Your task to perform on an android device: turn on wifi Image 0: 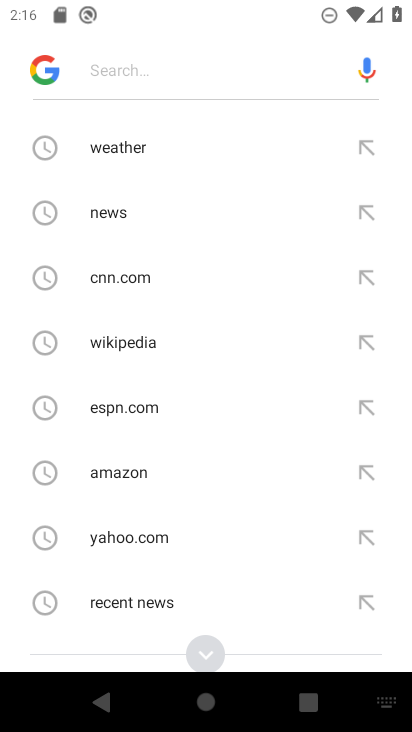
Step 0: press back button
Your task to perform on an android device: turn on wifi Image 1: 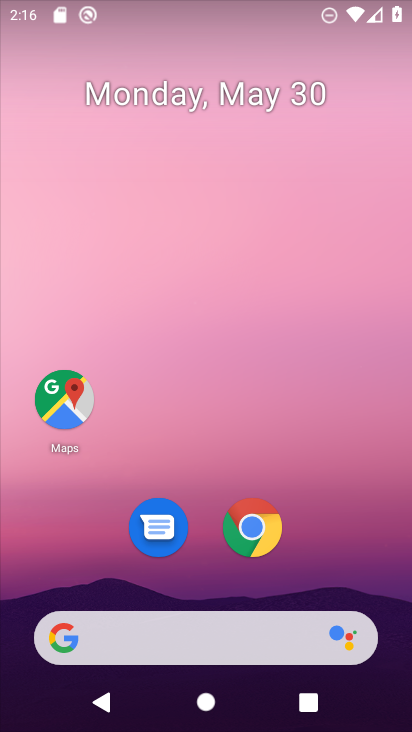
Step 1: drag from (262, 701) to (222, 114)
Your task to perform on an android device: turn on wifi Image 2: 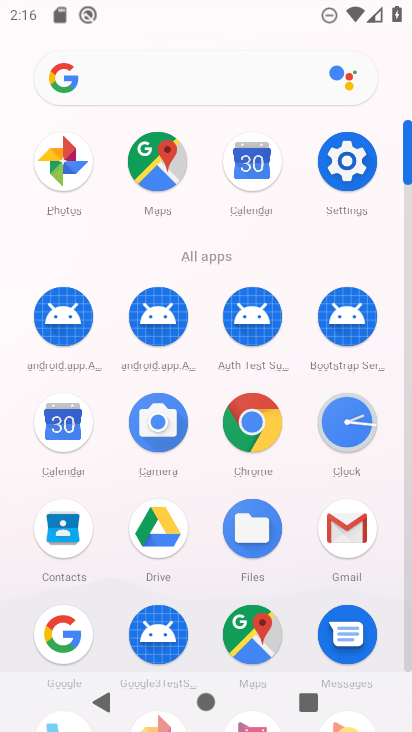
Step 2: click (352, 150)
Your task to perform on an android device: turn on wifi Image 3: 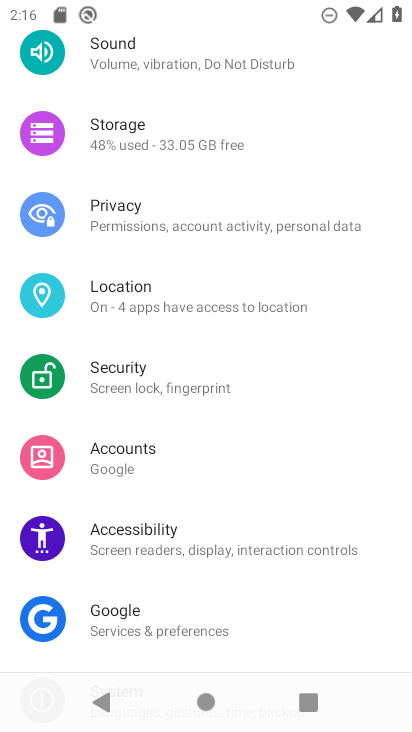
Step 3: drag from (150, 101) to (151, 527)
Your task to perform on an android device: turn on wifi Image 4: 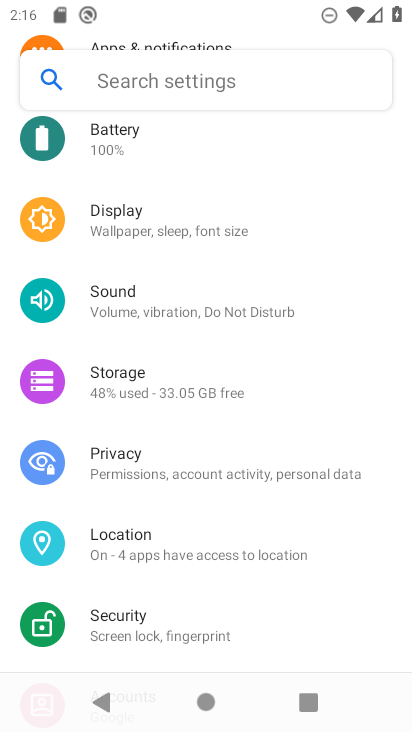
Step 4: drag from (124, 234) to (183, 490)
Your task to perform on an android device: turn on wifi Image 5: 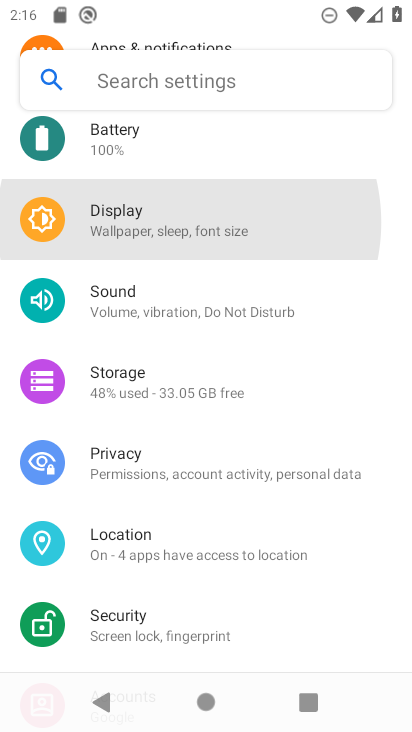
Step 5: drag from (177, 256) to (249, 568)
Your task to perform on an android device: turn on wifi Image 6: 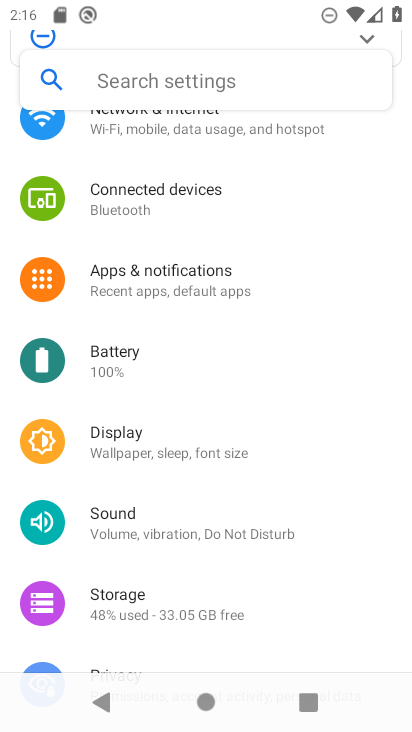
Step 6: drag from (250, 334) to (298, 575)
Your task to perform on an android device: turn on wifi Image 7: 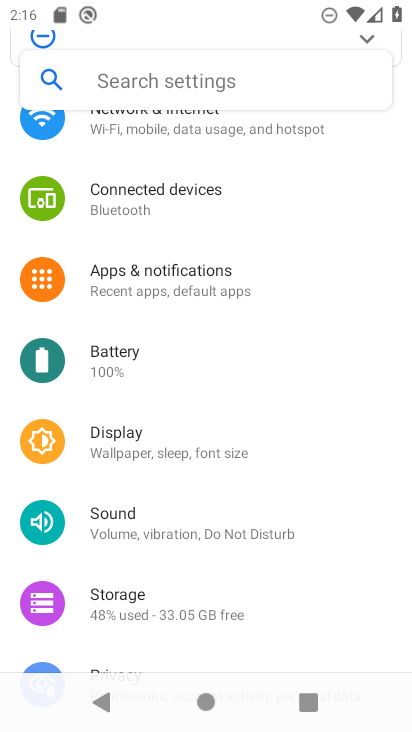
Step 7: drag from (257, 380) to (309, 651)
Your task to perform on an android device: turn on wifi Image 8: 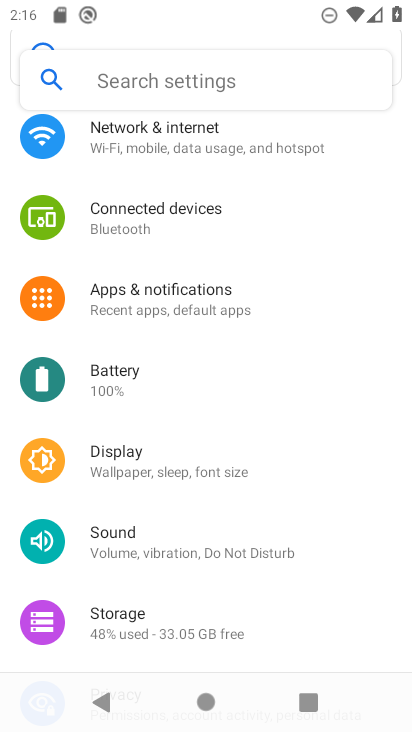
Step 8: drag from (228, 304) to (281, 617)
Your task to perform on an android device: turn on wifi Image 9: 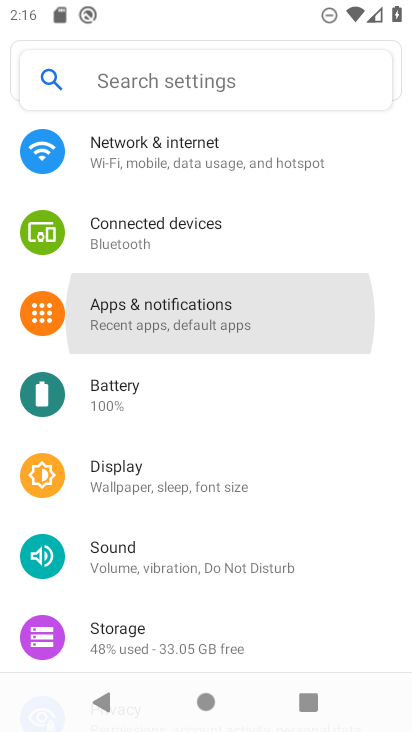
Step 9: drag from (239, 313) to (279, 663)
Your task to perform on an android device: turn on wifi Image 10: 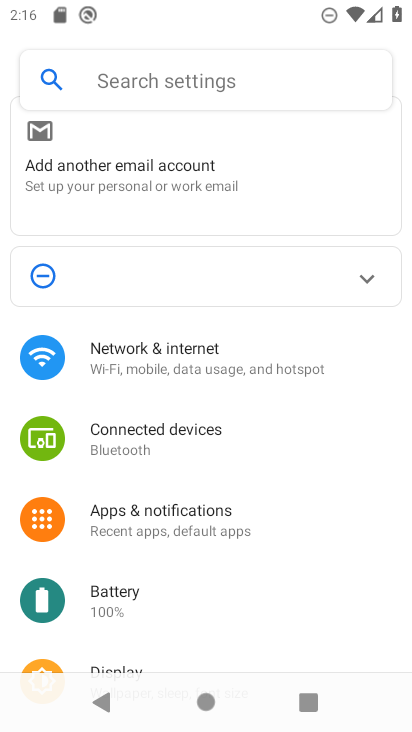
Step 10: drag from (200, 337) to (240, 648)
Your task to perform on an android device: turn on wifi Image 11: 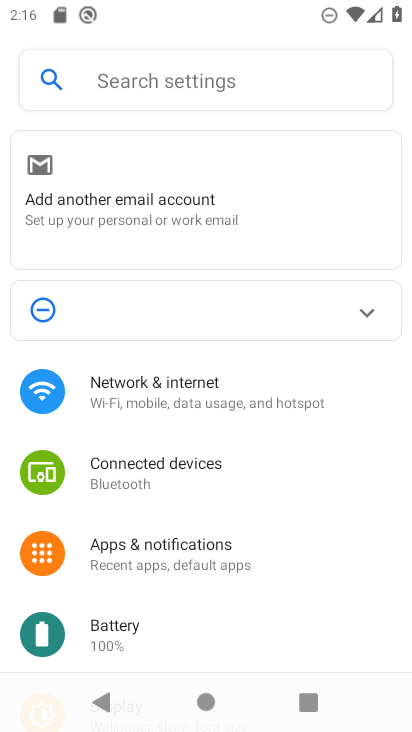
Step 11: drag from (183, 373) to (219, 621)
Your task to perform on an android device: turn on wifi Image 12: 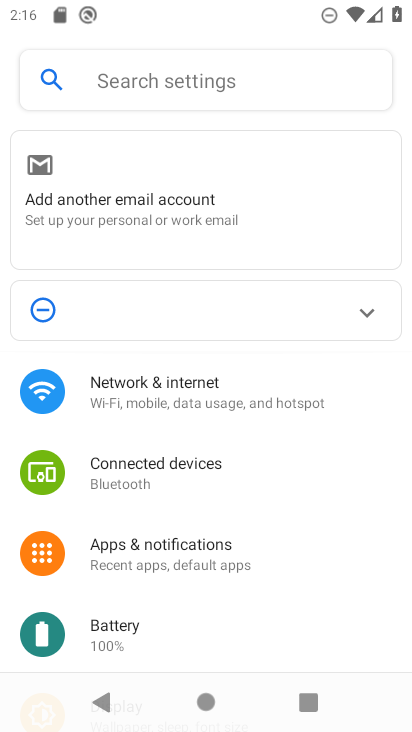
Step 12: click (169, 389)
Your task to perform on an android device: turn on wifi Image 13: 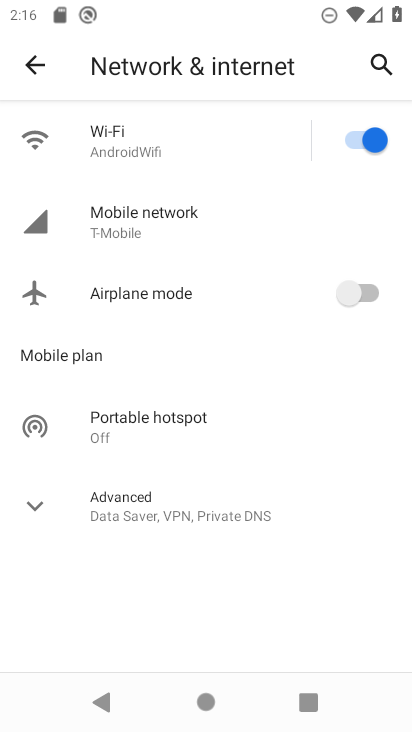
Step 13: task complete